Your task to perform on an android device: See recent photos Image 0: 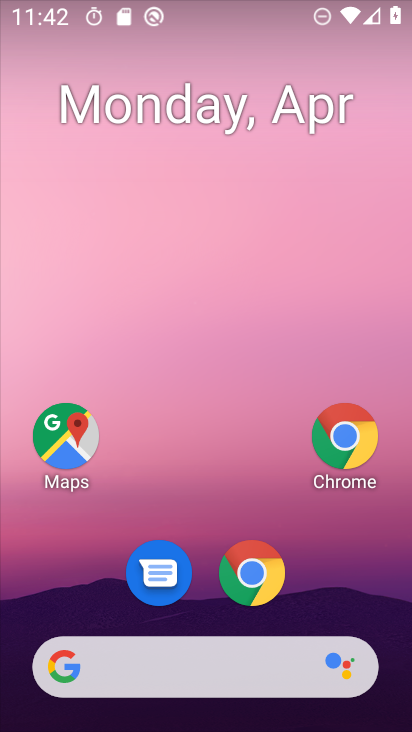
Step 0: drag from (339, 462) to (356, 67)
Your task to perform on an android device: See recent photos Image 1: 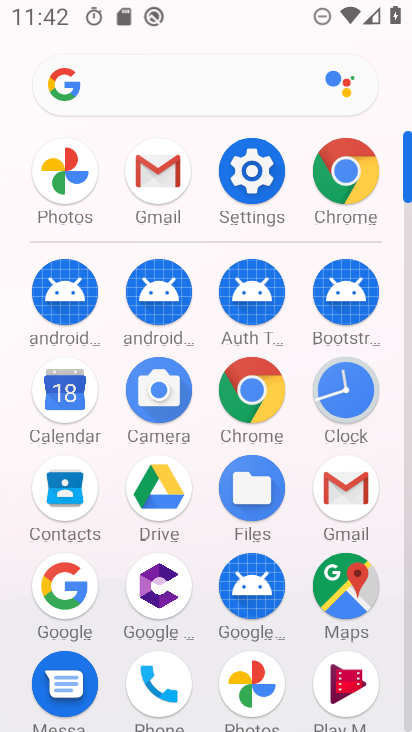
Step 1: drag from (402, 588) to (411, 272)
Your task to perform on an android device: See recent photos Image 2: 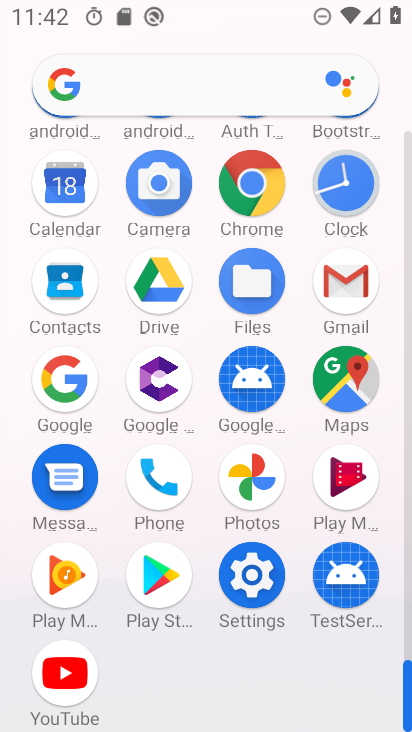
Step 2: click (270, 500)
Your task to perform on an android device: See recent photos Image 3: 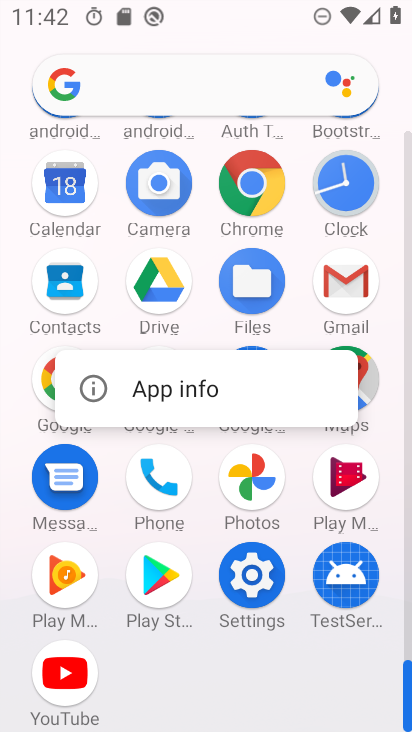
Step 3: click (270, 500)
Your task to perform on an android device: See recent photos Image 4: 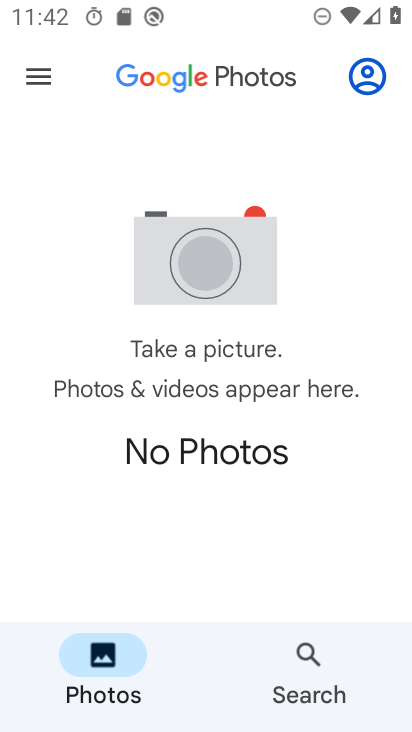
Step 4: click (28, 88)
Your task to perform on an android device: See recent photos Image 5: 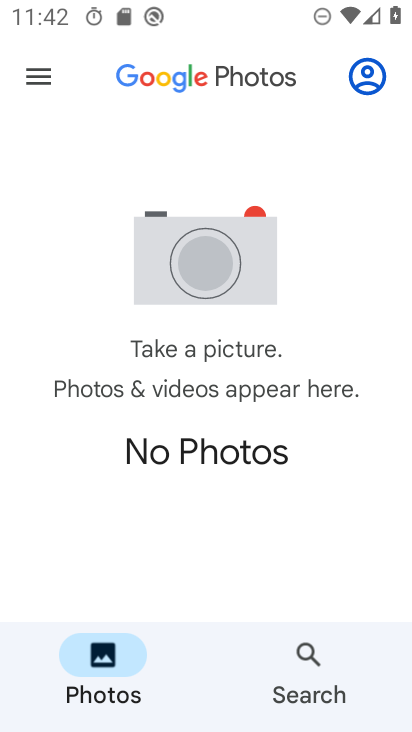
Step 5: click (99, 674)
Your task to perform on an android device: See recent photos Image 6: 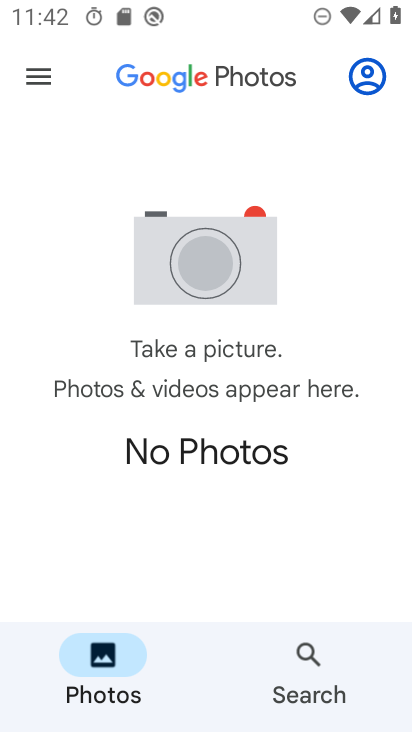
Step 6: task complete